Your task to perform on an android device: delete a single message in the gmail app Image 0: 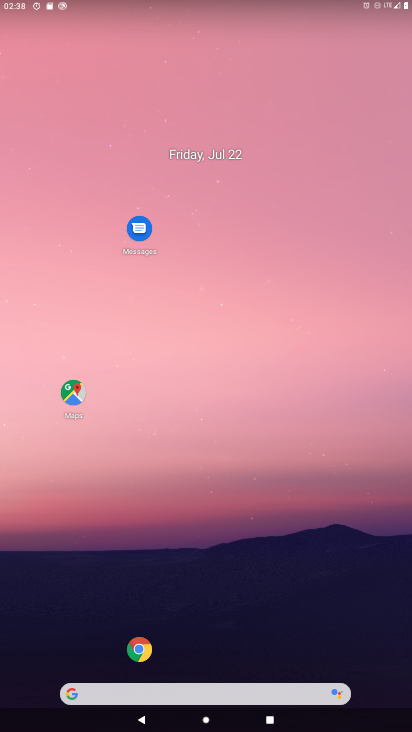
Step 0: click (307, 144)
Your task to perform on an android device: delete a single message in the gmail app Image 1: 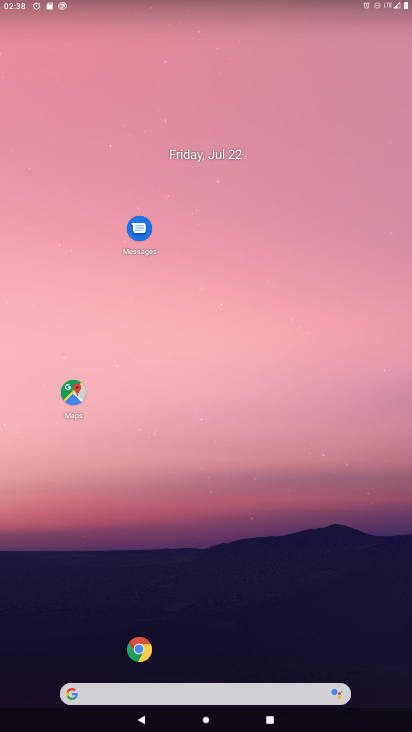
Step 1: drag from (50, 669) to (219, 107)
Your task to perform on an android device: delete a single message in the gmail app Image 2: 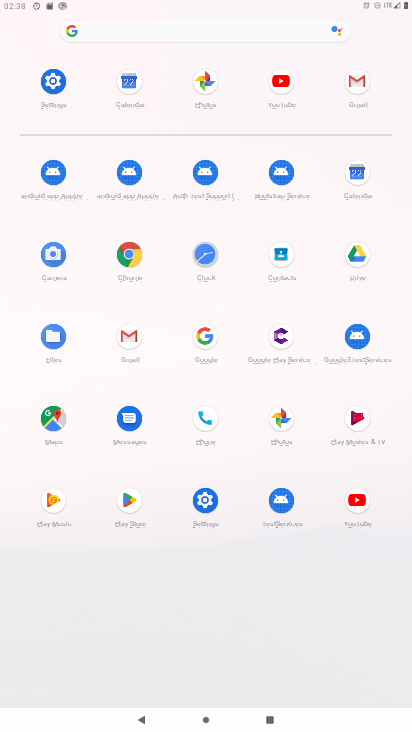
Step 2: click (125, 335)
Your task to perform on an android device: delete a single message in the gmail app Image 3: 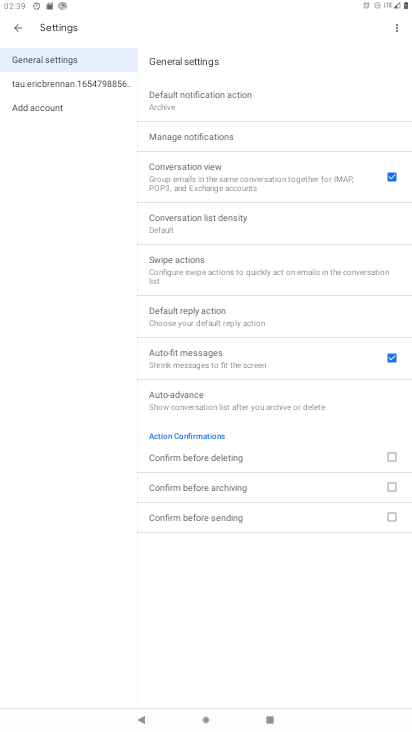
Step 3: press back button
Your task to perform on an android device: delete a single message in the gmail app Image 4: 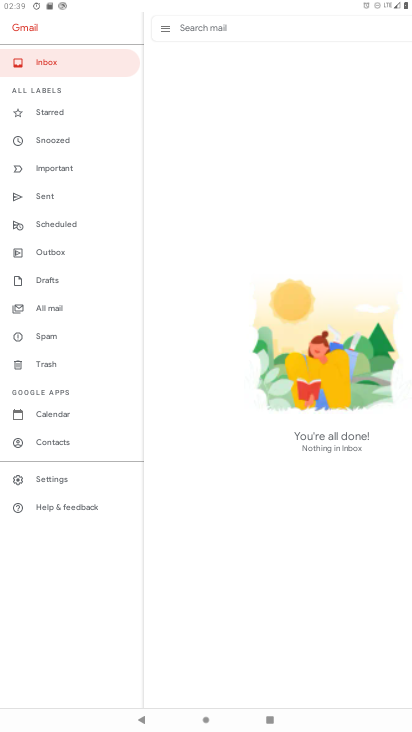
Step 4: click (57, 73)
Your task to perform on an android device: delete a single message in the gmail app Image 5: 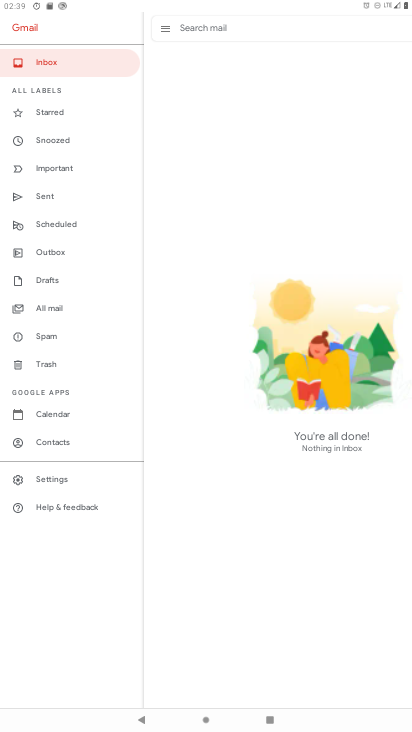
Step 5: task complete